Your task to perform on an android device: What's the weather going to be this weekend? Image 0: 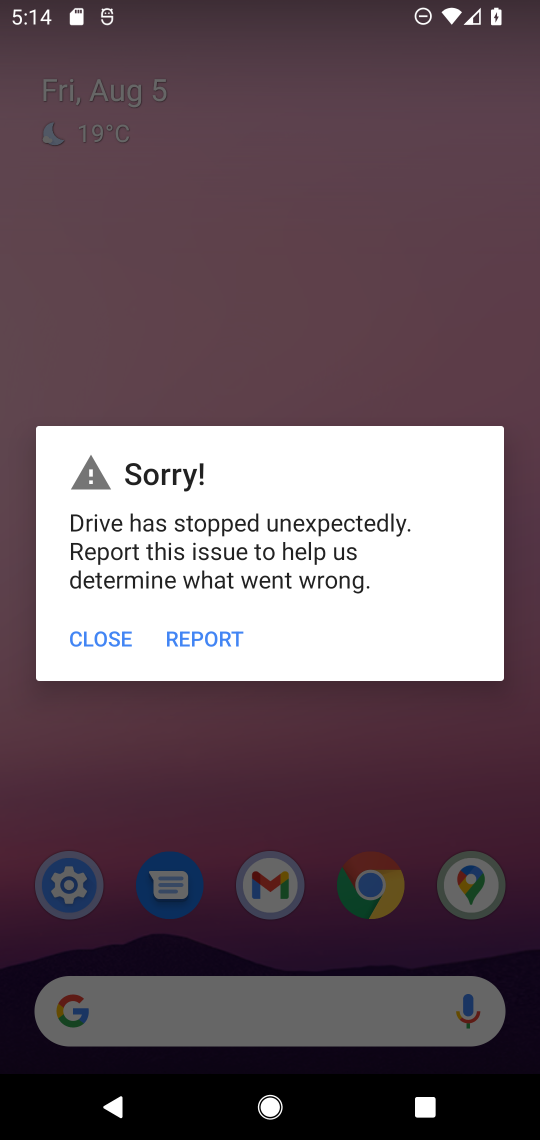
Step 0: press home button
Your task to perform on an android device: What's the weather going to be this weekend? Image 1: 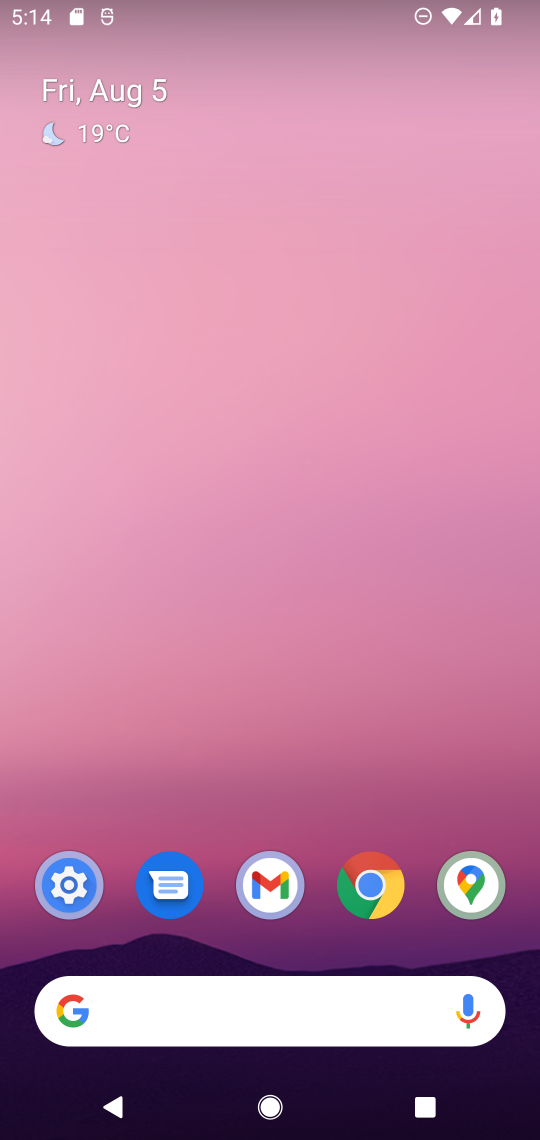
Step 1: drag from (319, 910) to (249, 14)
Your task to perform on an android device: What's the weather going to be this weekend? Image 2: 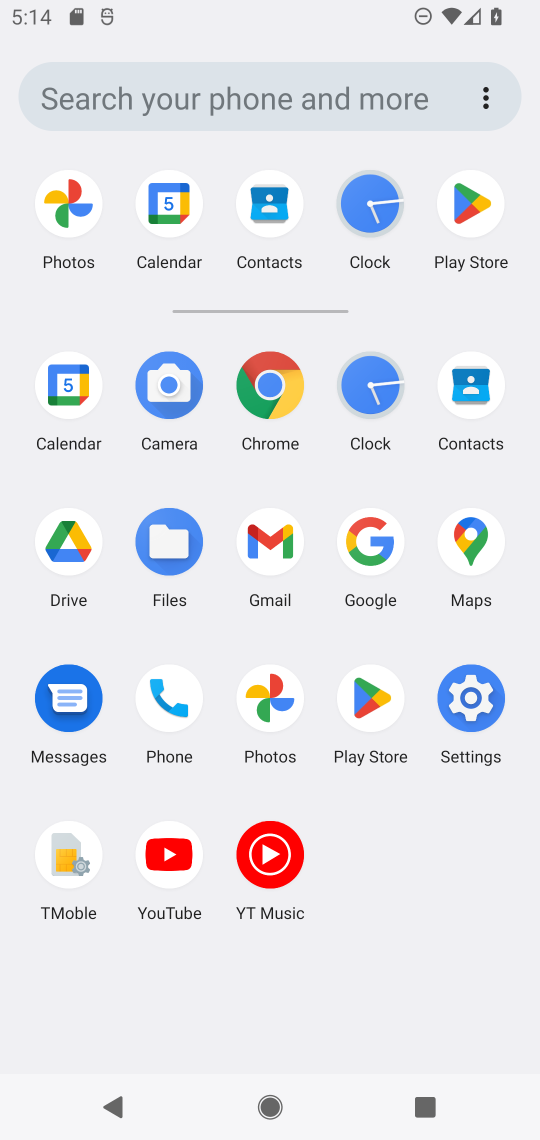
Step 2: click (367, 538)
Your task to perform on an android device: What's the weather going to be this weekend? Image 3: 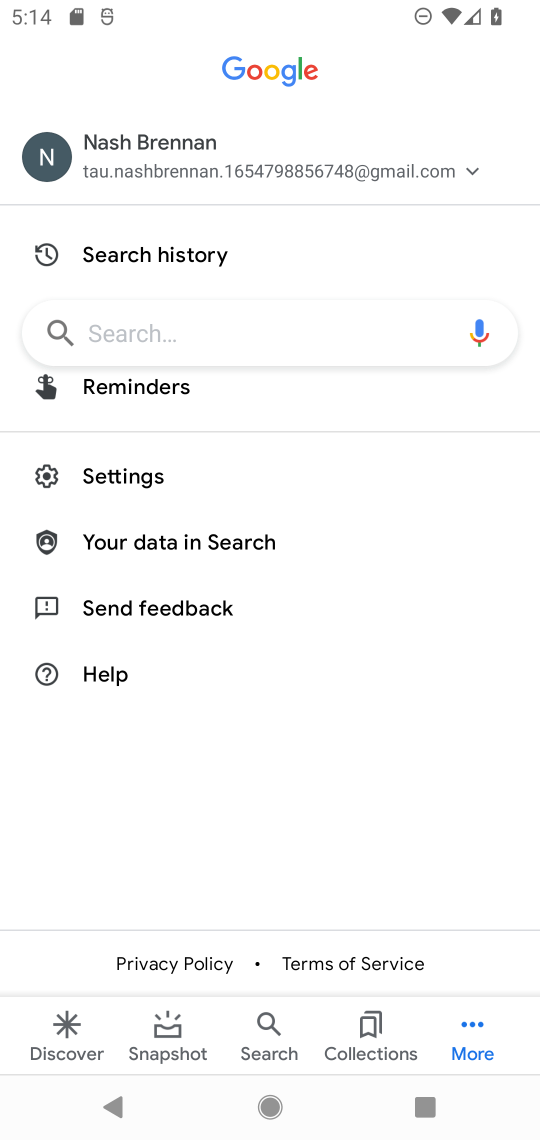
Step 3: press home button
Your task to perform on an android device: What's the weather going to be this weekend? Image 4: 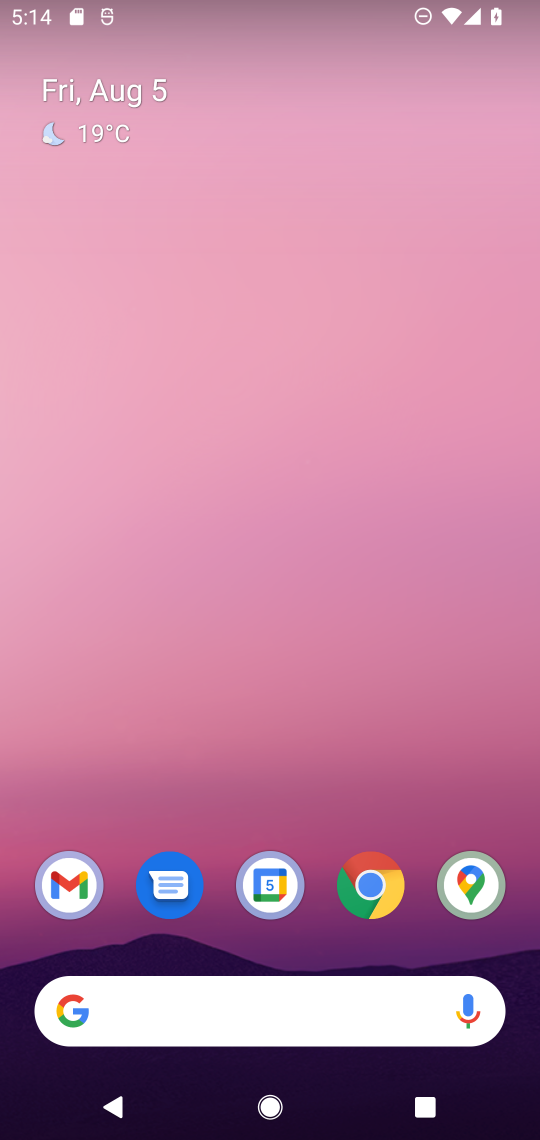
Step 4: drag from (329, 961) to (314, 37)
Your task to perform on an android device: What's the weather going to be this weekend? Image 5: 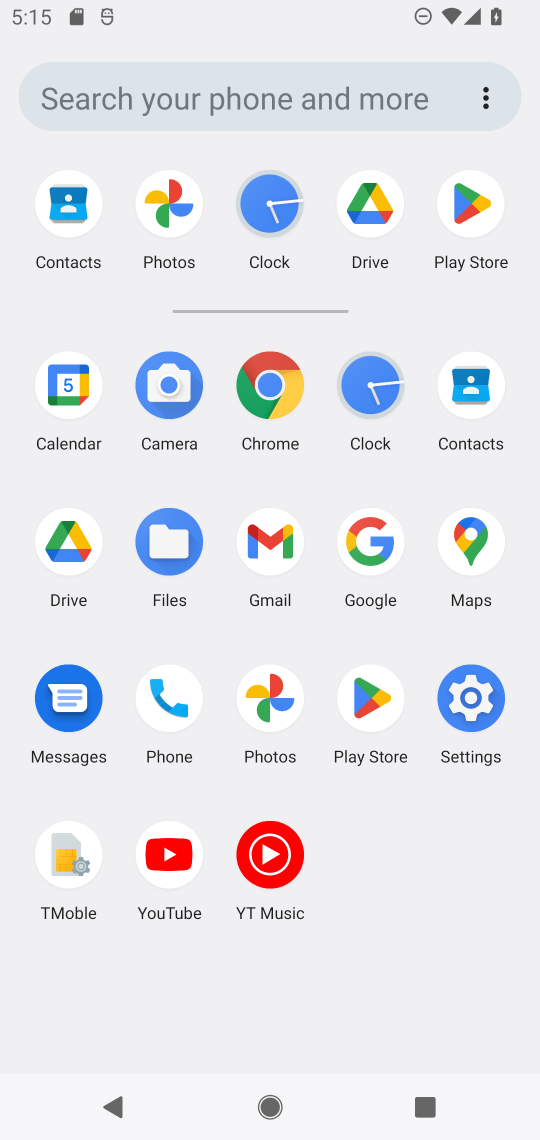
Step 5: click (371, 534)
Your task to perform on an android device: What's the weather going to be this weekend? Image 6: 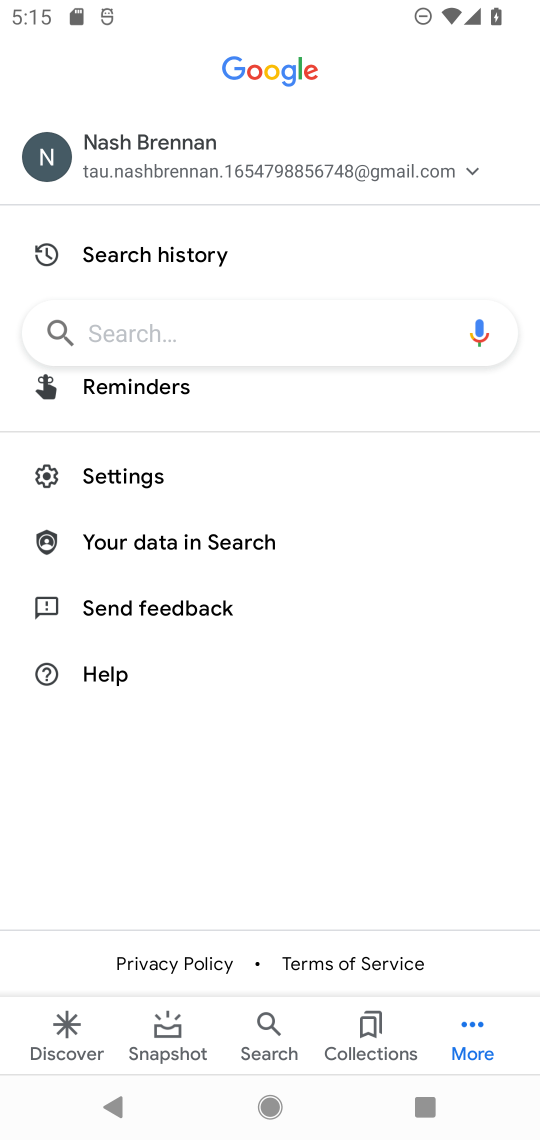
Step 6: click (59, 1022)
Your task to perform on an android device: What's the weather going to be this weekend? Image 7: 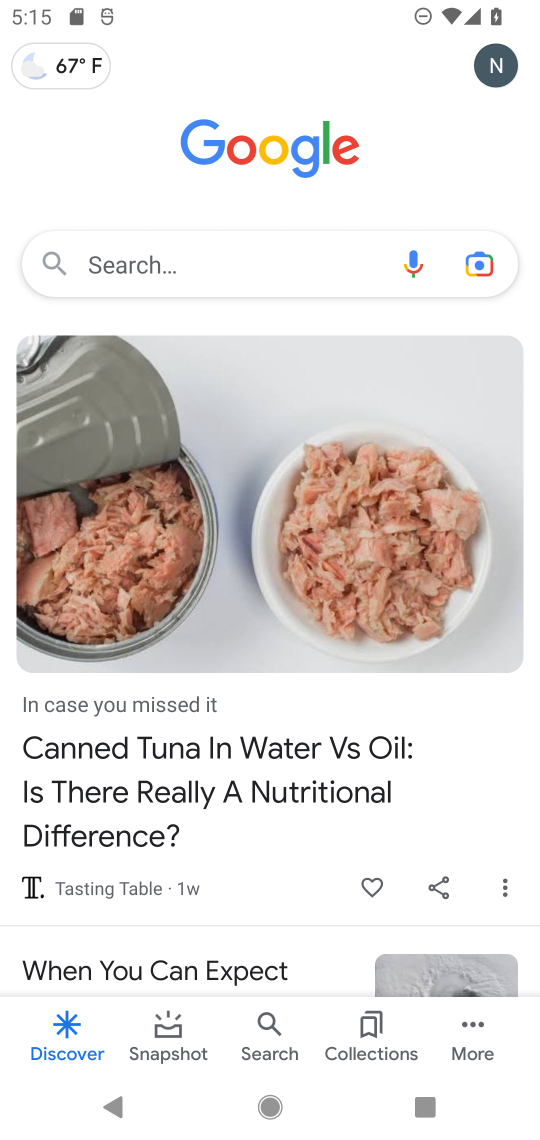
Step 7: click (293, 261)
Your task to perform on an android device: What's the weather going to be this weekend? Image 8: 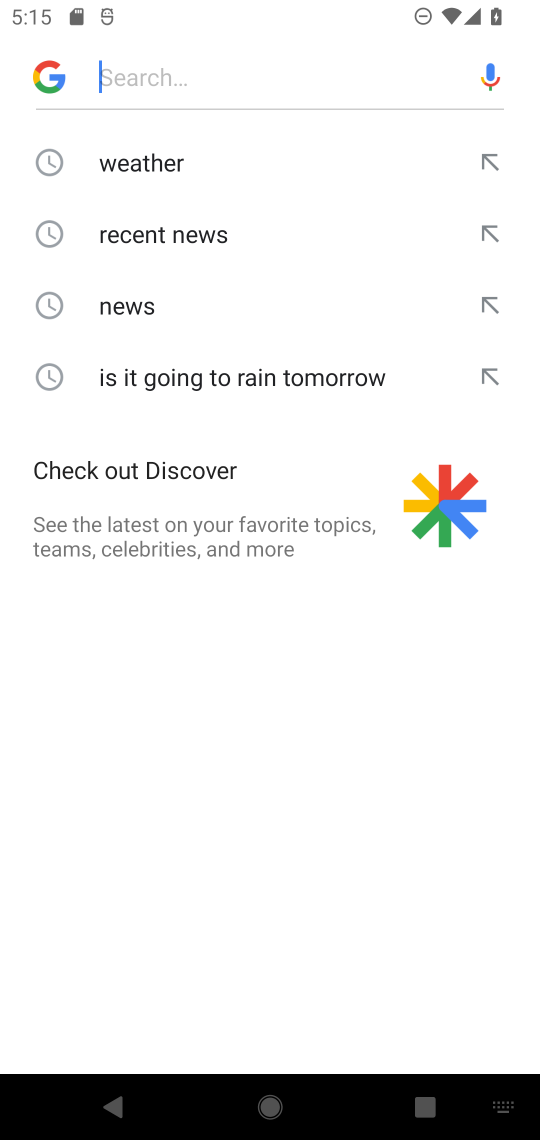
Step 8: click (151, 154)
Your task to perform on an android device: What's the weather going to be this weekend? Image 9: 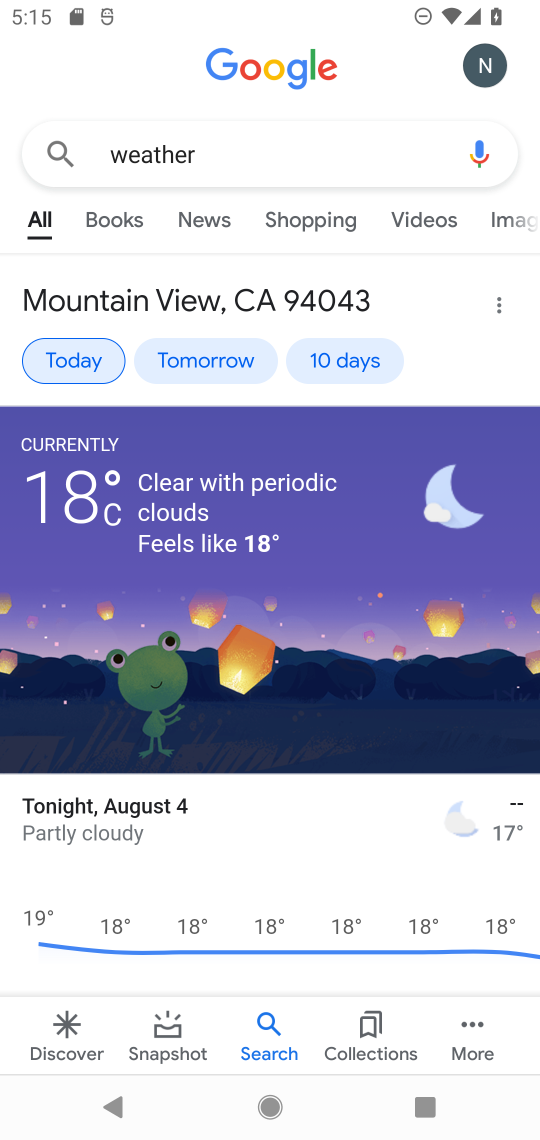
Step 9: click (356, 356)
Your task to perform on an android device: What's the weather going to be this weekend? Image 10: 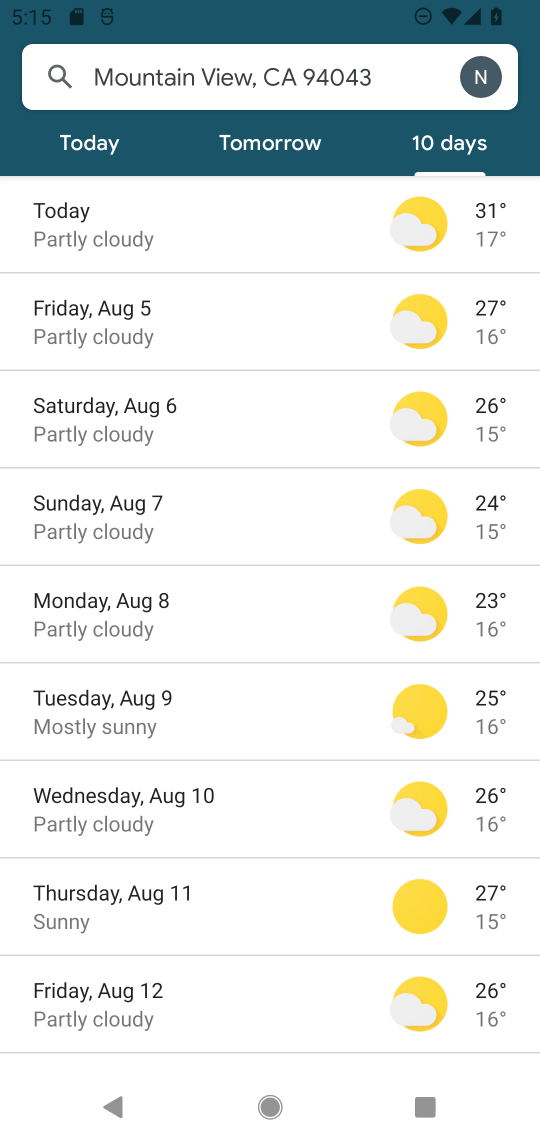
Step 10: click (144, 419)
Your task to perform on an android device: What's the weather going to be this weekend? Image 11: 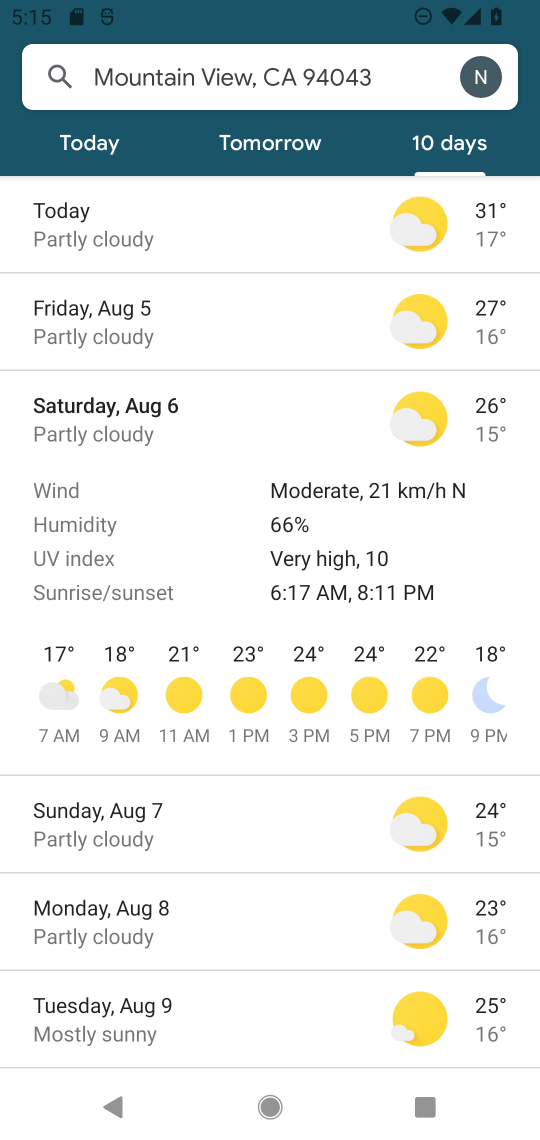
Step 11: task complete